Your task to perform on an android device: Find coffee shops on Maps Image 0: 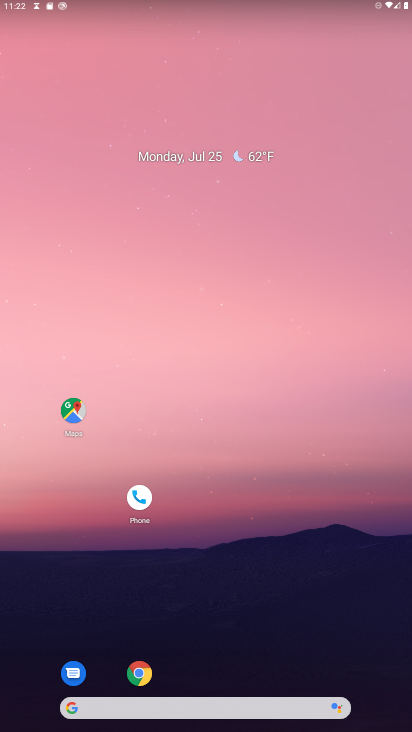
Step 0: press home button
Your task to perform on an android device: Find coffee shops on Maps Image 1: 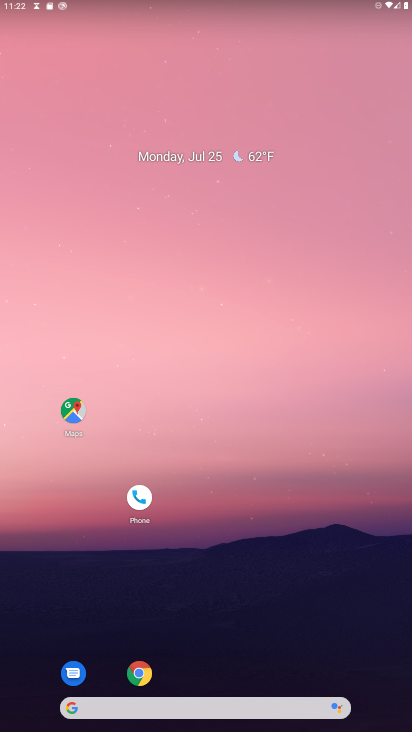
Step 1: drag from (241, 562) to (274, 79)
Your task to perform on an android device: Find coffee shops on Maps Image 2: 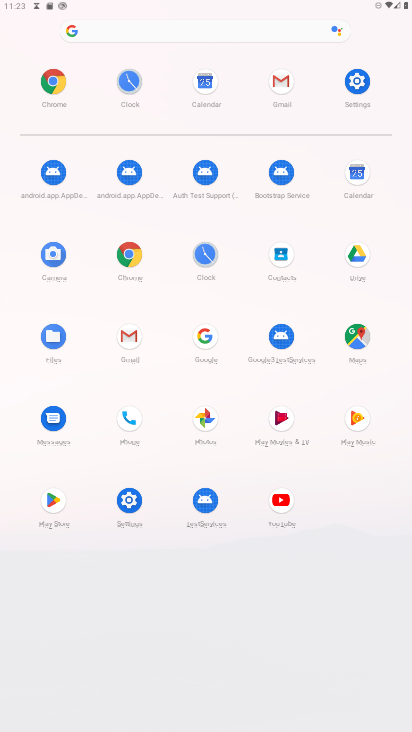
Step 2: press home button
Your task to perform on an android device: Find coffee shops on Maps Image 3: 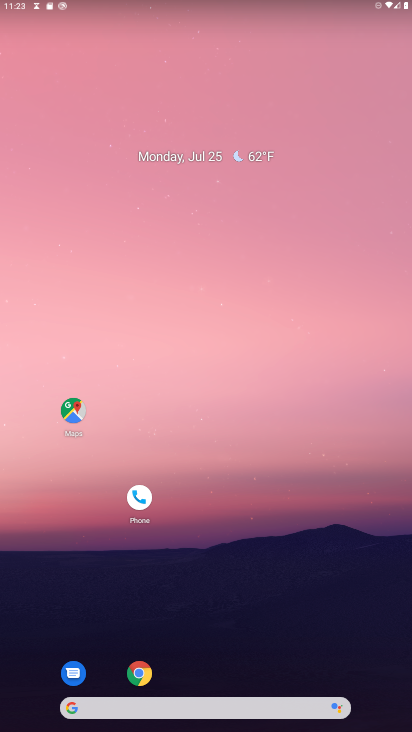
Step 3: drag from (312, 616) to (254, 84)
Your task to perform on an android device: Find coffee shops on Maps Image 4: 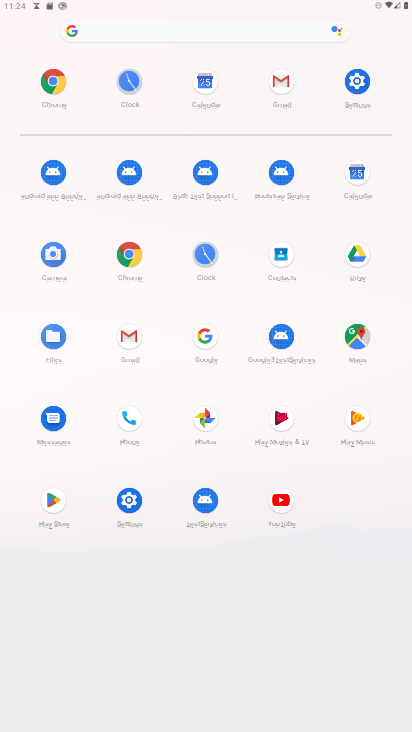
Step 4: click (363, 343)
Your task to perform on an android device: Find coffee shops on Maps Image 5: 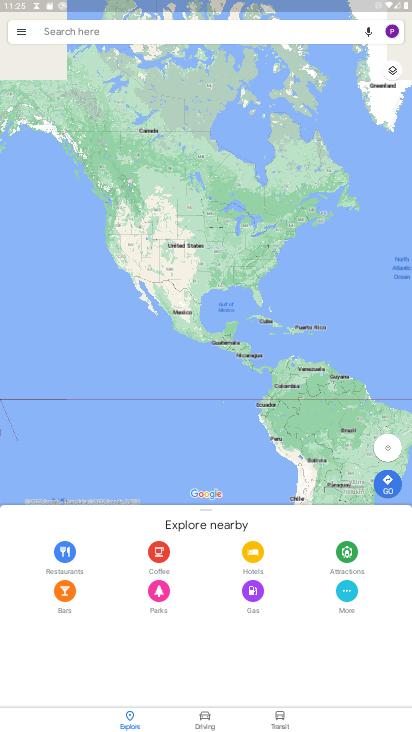
Step 5: click (96, 35)
Your task to perform on an android device: Find coffee shops on Maps Image 6: 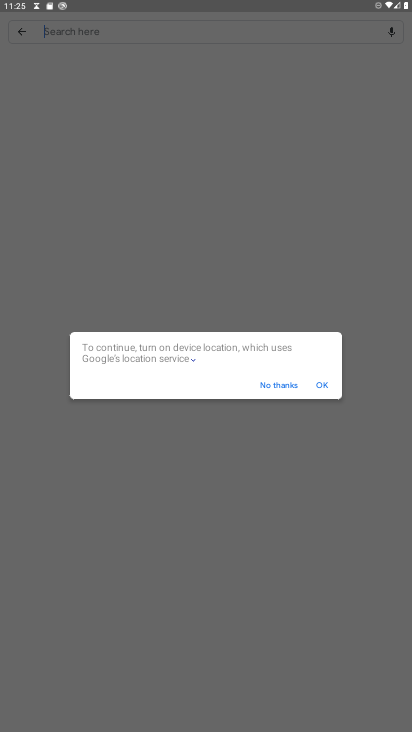
Step 6: click (279, 385)
Your task to perform on an android device: Find coffee shops on Maps Image 7: 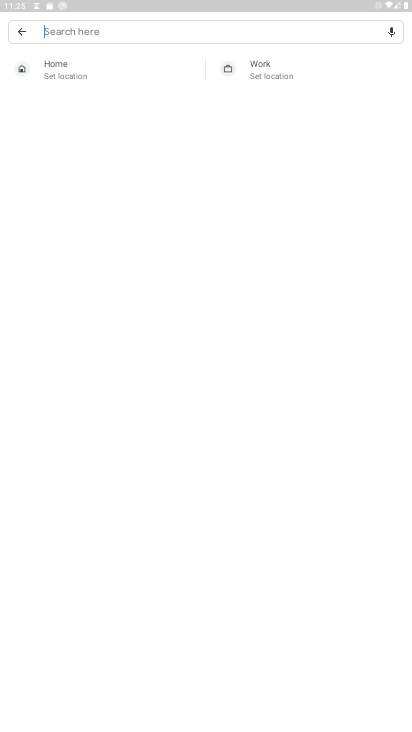
Step 7: click (80, 27)
Your task to perform on an android device: Find coffee shops on Maps Image 8: 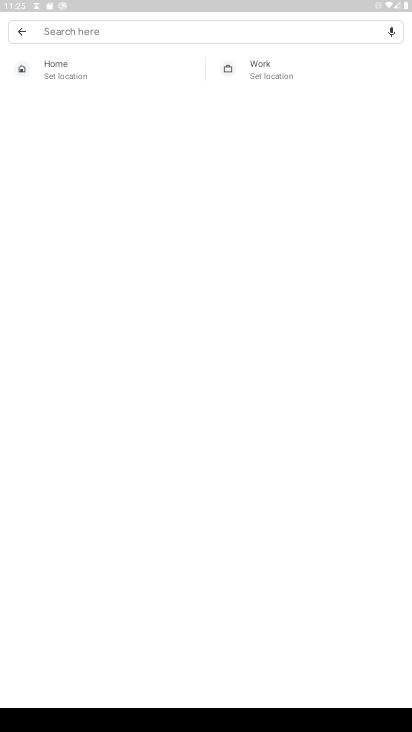
Step 8: type " coffee shops"
Your task to perform on an android device: Find coffee shops on Maps Image 9: 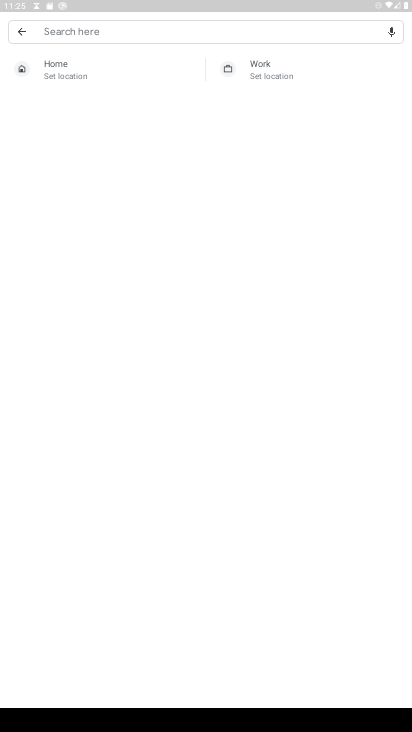
Step 9: click (62, 30)
Your task to perform on an android device: Find coffee shops on Maps Image 10: 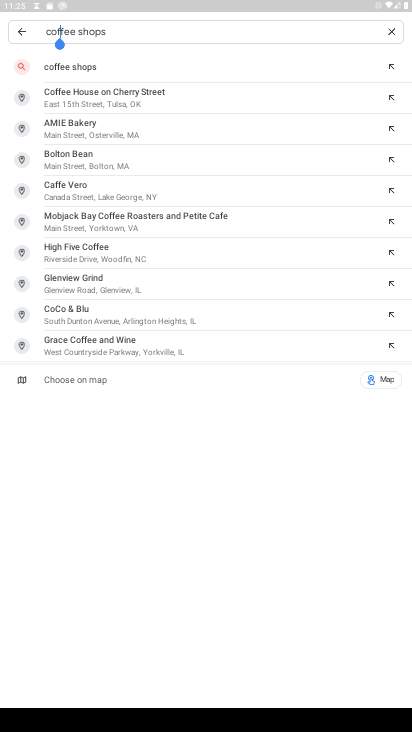
Step 10: click (74, 62)
Your task to perform on an android device: Find coffee shops on Maps Image 11: 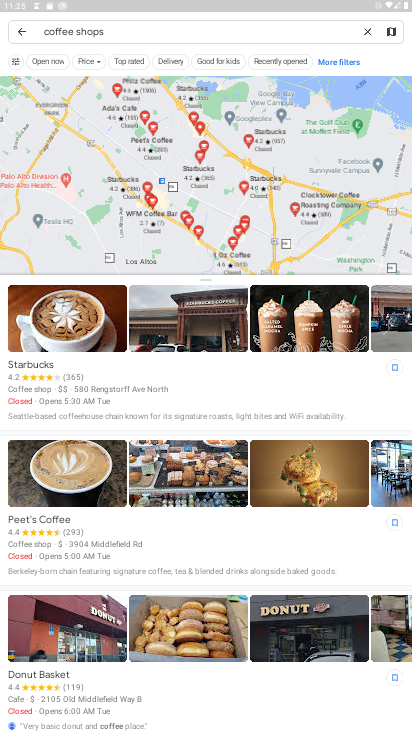
Step 11: task complete